Your task to perform on an android device: open a new tab in the chrome app Image 0: 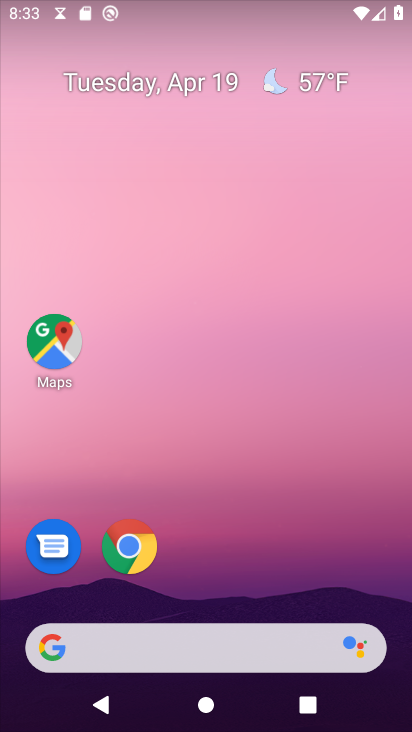
Step 0: click (137, 541)
Your task to perform on an android device: open a new tab in the chrome app Image 1: 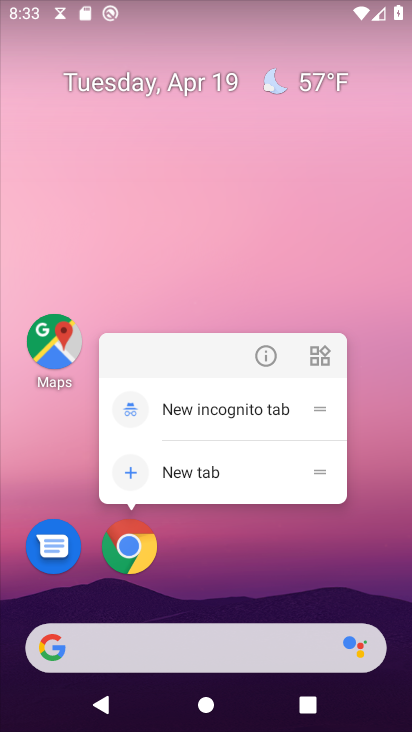
Step 1: click (137, 544)
Your task to perform on an android device: open a new tab in the chrome app Image 2: 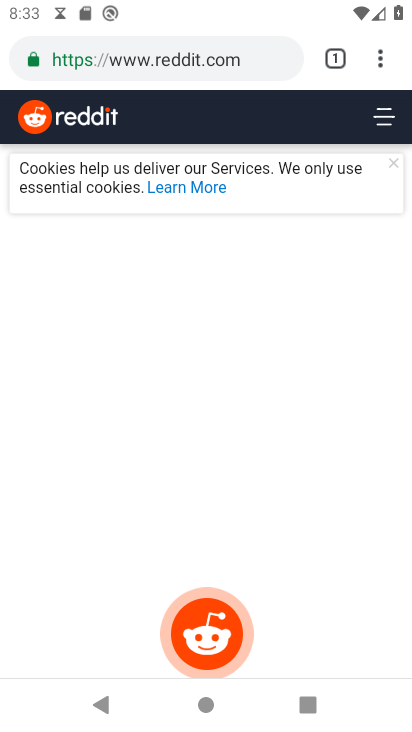
Step 2: click (380, 57)
Your task to perform on an android device: open a new tab in the chrome app Image 3: 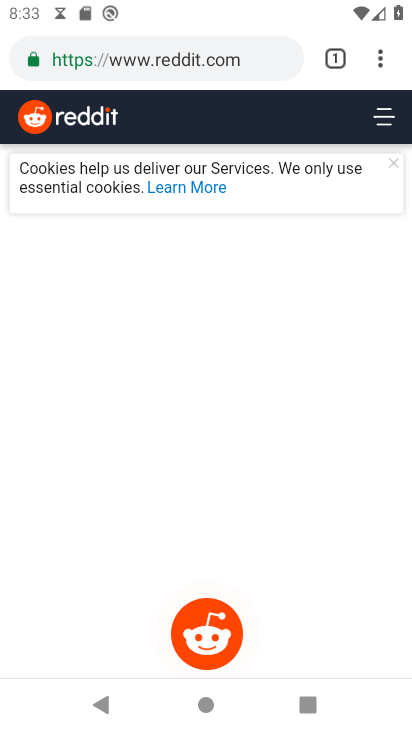
Step 3: click (379, 68)
Your task to perform on an android device: open a new tab in the chrome app Image 4: 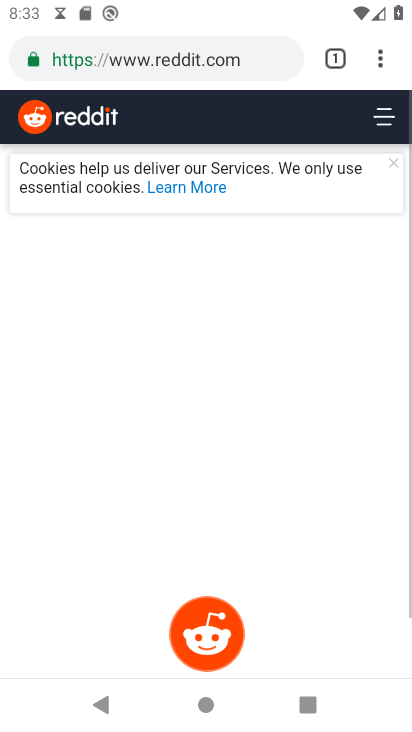
Step 4: click (379, 62)
Your task to perform on an android device: open a new tab in the chrome app Image 5: 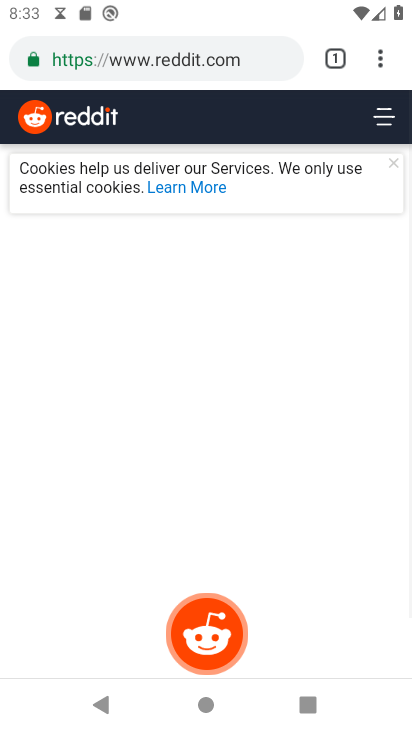
Step 5: click (344, 63)
Your task to perform on an android device: open a new tab in the chrome app Image 6: 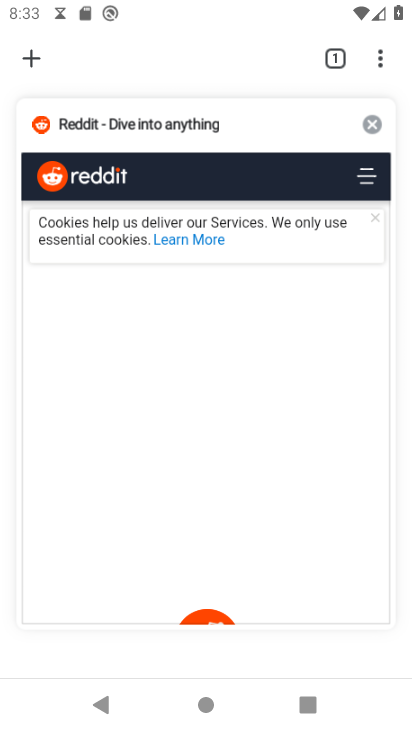
Step 6: click (28, 60)
Your task to perform on an android device: open a new tab in the chrome app Image 7: 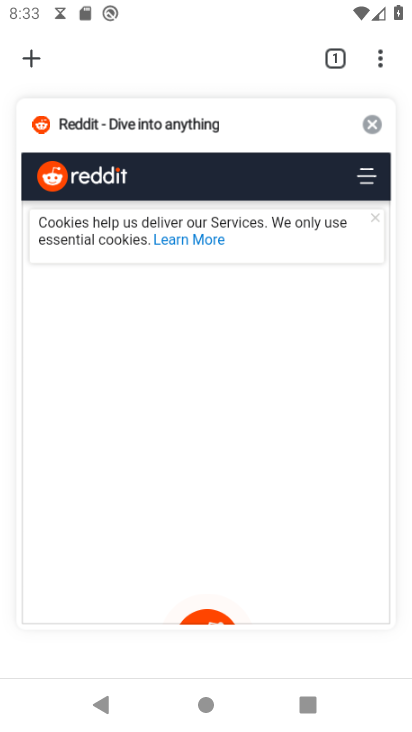
Step 7: click (31, 66)
Your task to perform on an android device: open a new tab in the chrome app Image 8: 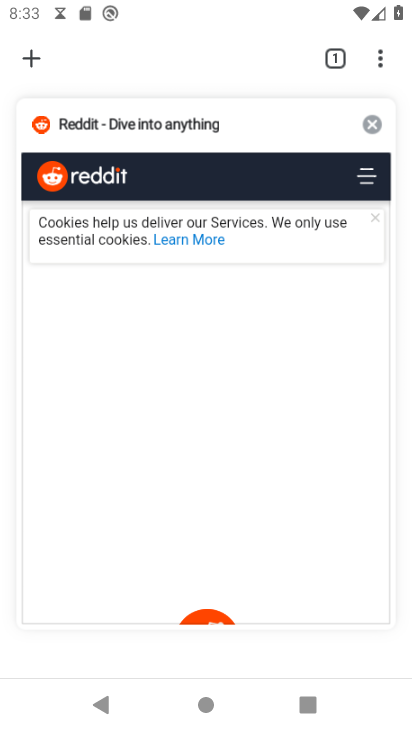
Step 8: click (29, 64)
Your task to perform on an android device: open a new tab in the chrome app Image 9: 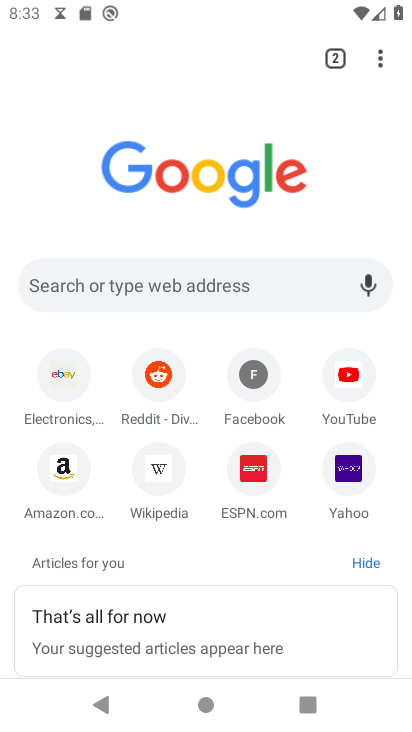
Step 9: task complete